Your task to perform on an android device: Show me popular games on the Play Store Image 0: 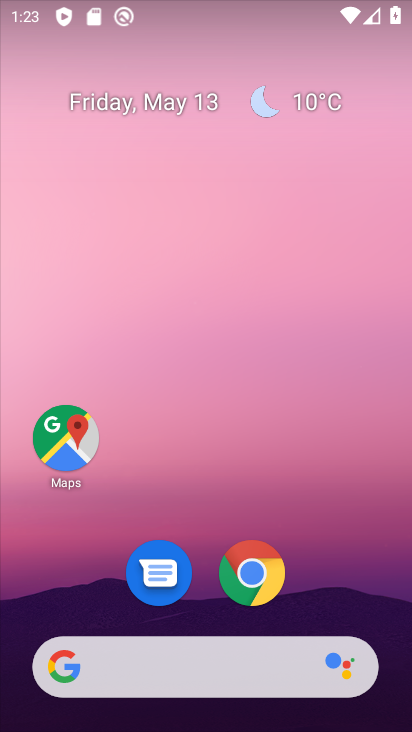
Step 0: drag from (340, 537) to (237, 1)
Your task to perform on an android device: Show me popular games on the Play Store Image 1: 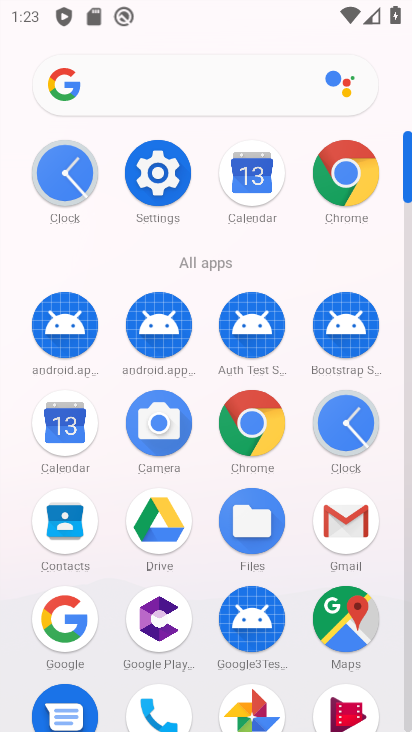
Step 1: drag from (20, 540) to (35, 194)
Your task to perform on an android device: Show me popular games on the Play Store Image 2: 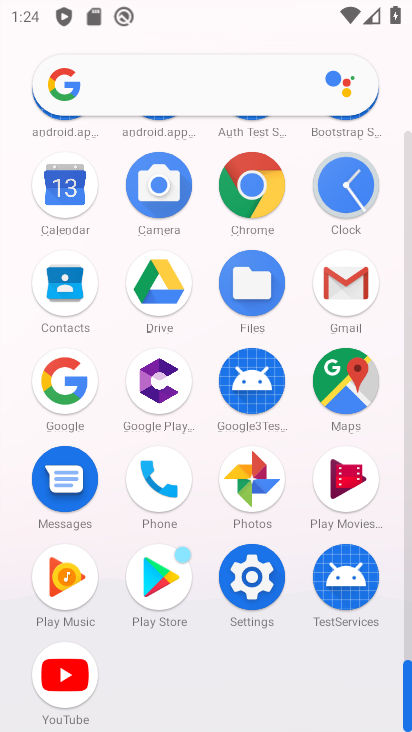
Step 2: click (157, 569)
Your task to perform on an android device: Show me popular games on the Play Store Image 3: 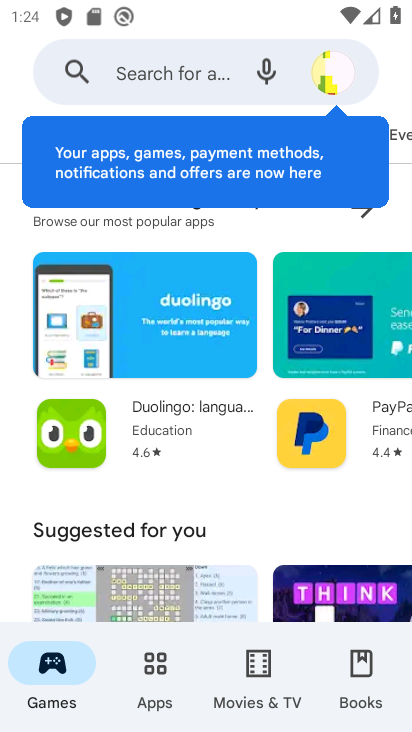
Step 3: task complete